Your task to perform on an android device: check the backup settings in the google photos Image 0: 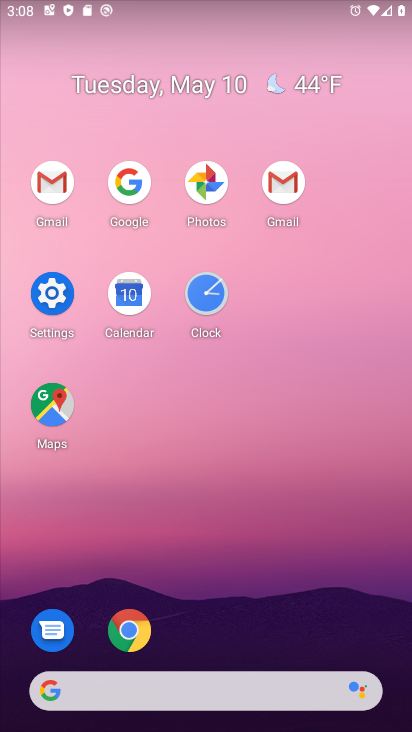
Step 0: click (209, 187)
Your task to perform on an android device: check the backup settings in the google photos Image 1: 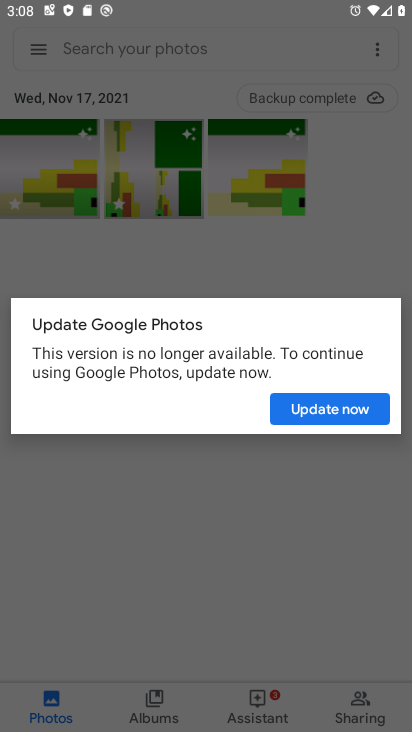
Step 1: click (353, 416)
Your task to perform on an android device: check the backup settings in the google photos Image 2: 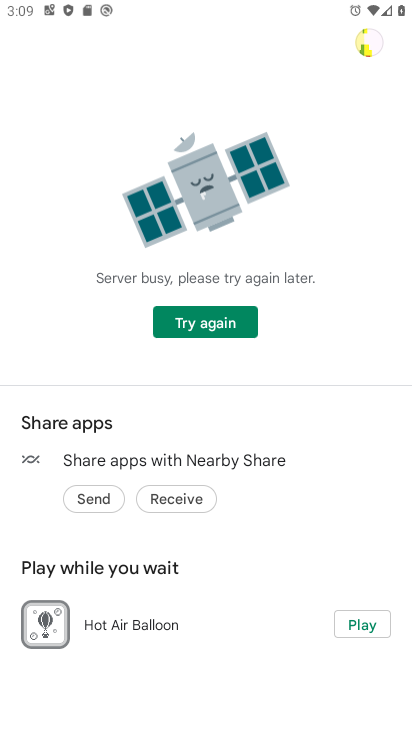
Step 2: click (237, 321)
Your task to perform on an android device: check the backup settings in the google photos Image 3: 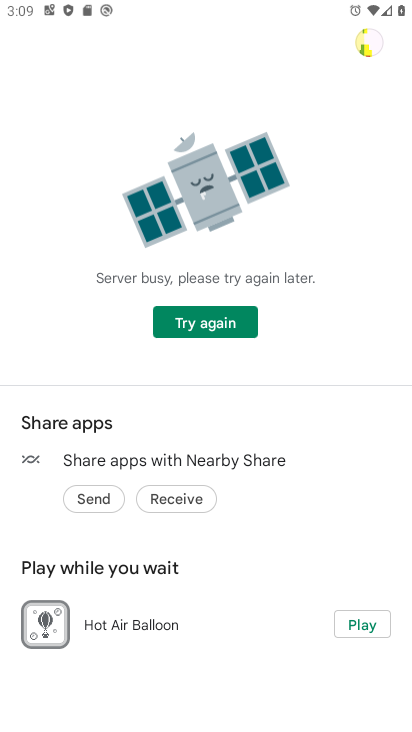
Step 3: task complete